Your task to perform on an android device: find snoozed emails in the gmail app Image 0: 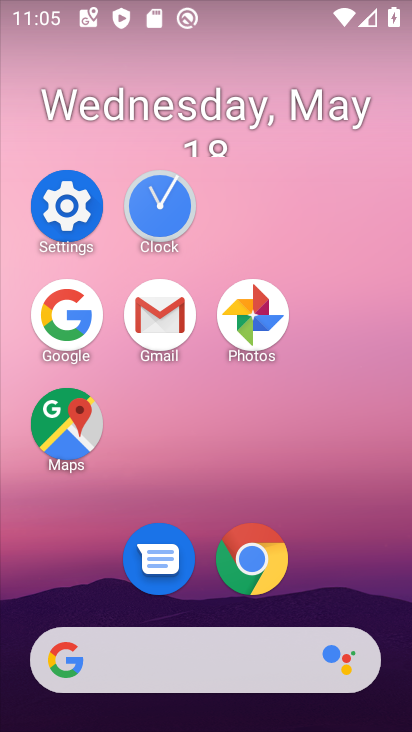
Step 0: click (152, 332)
Your task to perform on an android device: find snoozed emails in the gmail app Image 1: 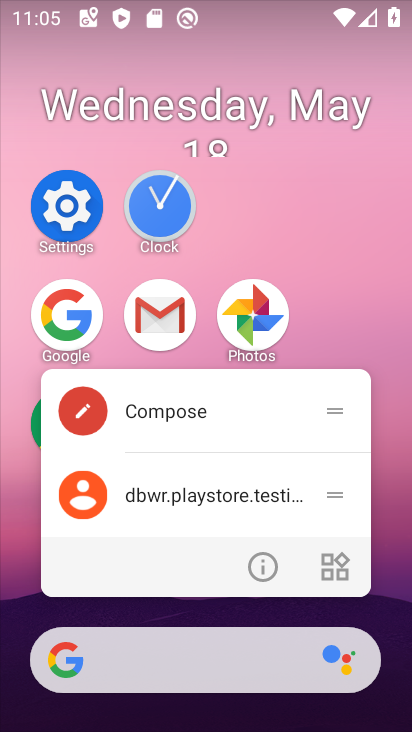
Step 1: click (128, 303)
Your task to perform on an android device: find snoozed emails in the gmail app Image 2: 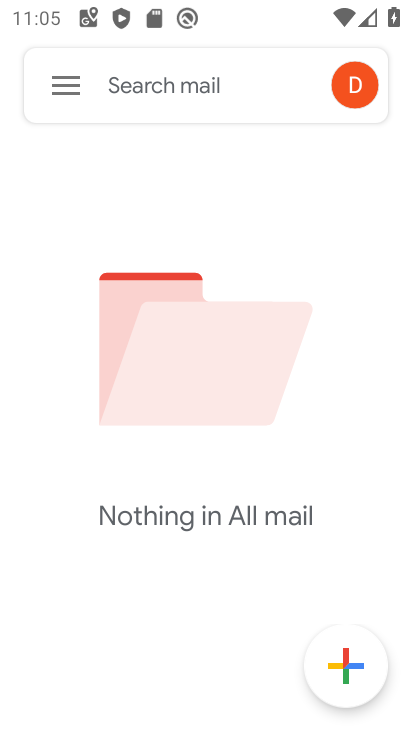
Step 2: click (65, 81)
Your task to perform on an android device: find snoozed emails in the gmail app Image 3: 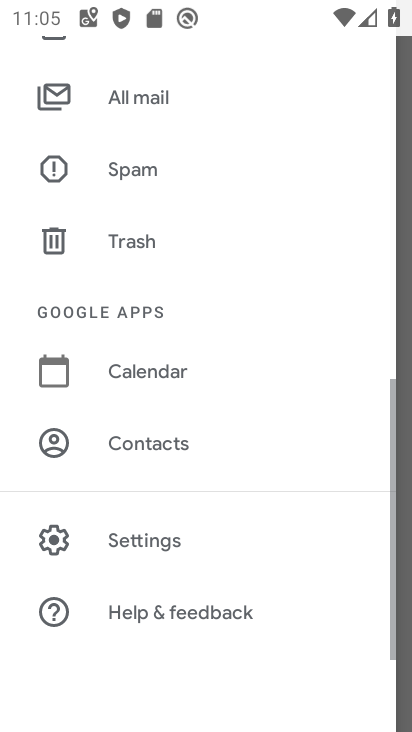
Step 3: drag from (213, 178) to (254, 588)
Your task to perform on an android device: find snoozed emails in the gmail app Image 4: 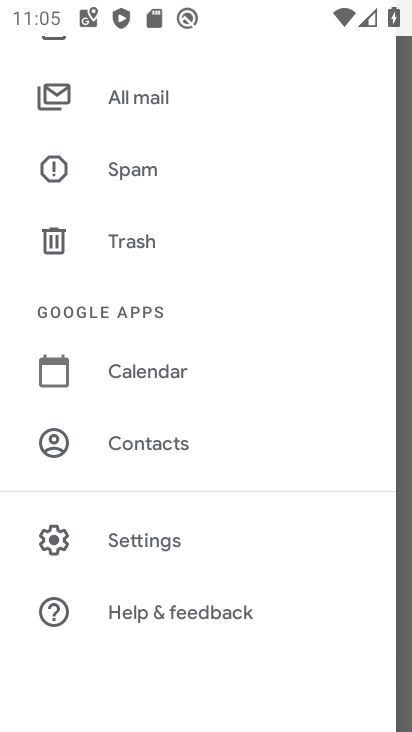
Step 4: drag from (276, 157) to (326, 606)
Your task to perform on an android device: find snoozed emails in the gmail app Image 5: 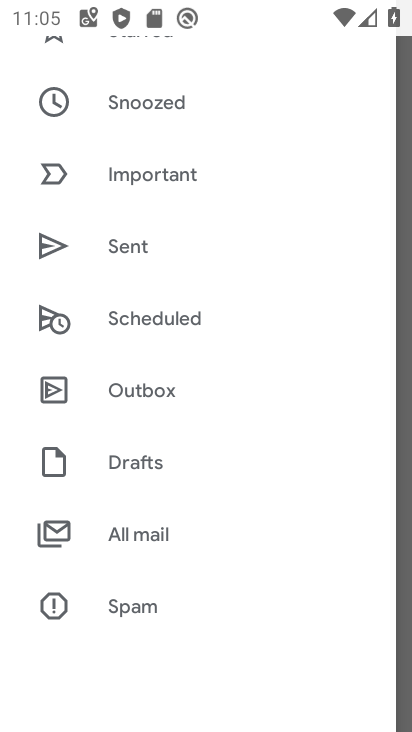
Step 5: click (201, 112)
Your task to perform on an android device: find snoozed emails in the gmail app Image 6: 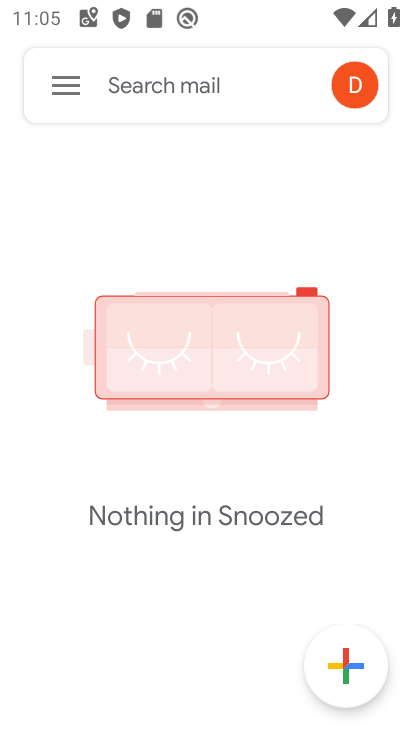
Step 6: task complete